Your task to perform on an android device: turn off notifications in google photos Image 0: 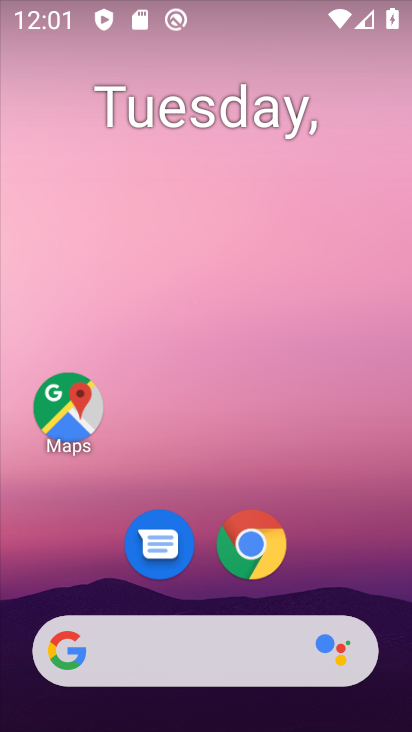
Step 0: task complete